Your task to perform on an android device: turn off location Image 0: 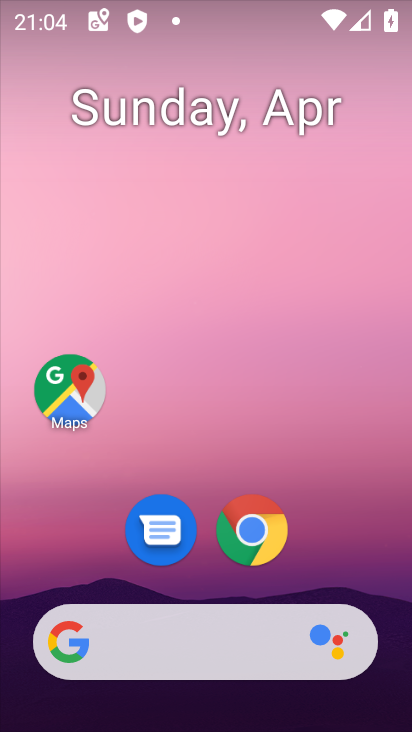
Step 0: drag from (232, 415) to (215, 94)
Your task to perform on an android device: turn off location Image 1: 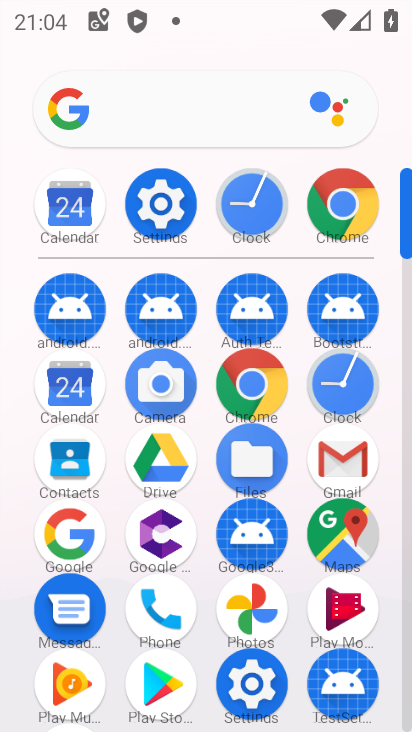
Step 1: click (162, 205)
Your task to perform on an android device: turn off location Image 2: 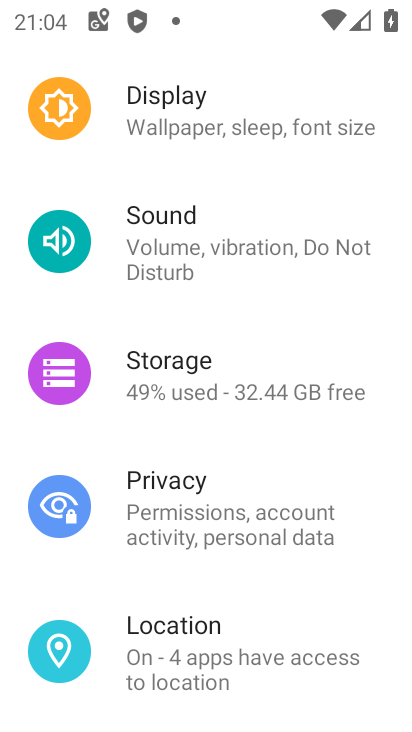
Step 2: click (160, 633)
Your task to perform on an android device: turn off location Image 3: 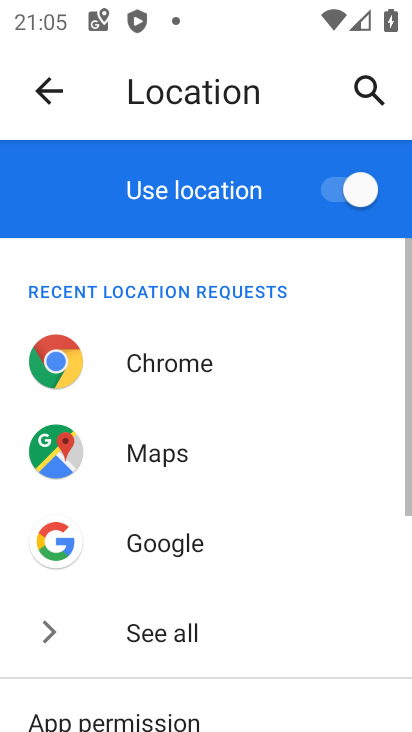
Step 3: click (359, 191)
Your task to perform on an android device: turn off location Image 4: 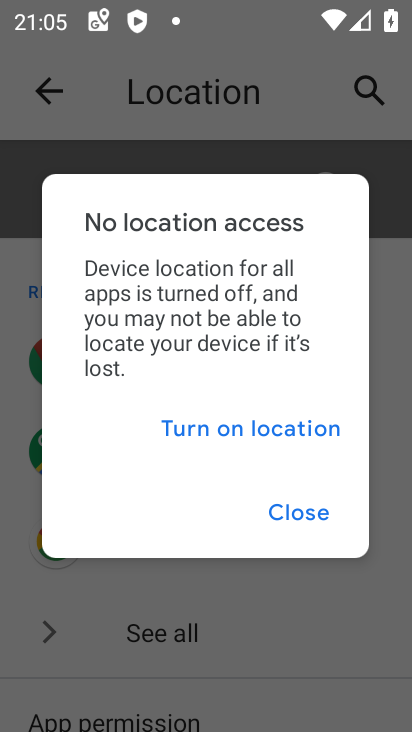
Step 4: task complete